Your task to perform on an android device: Turn on the flashlight Image 0: 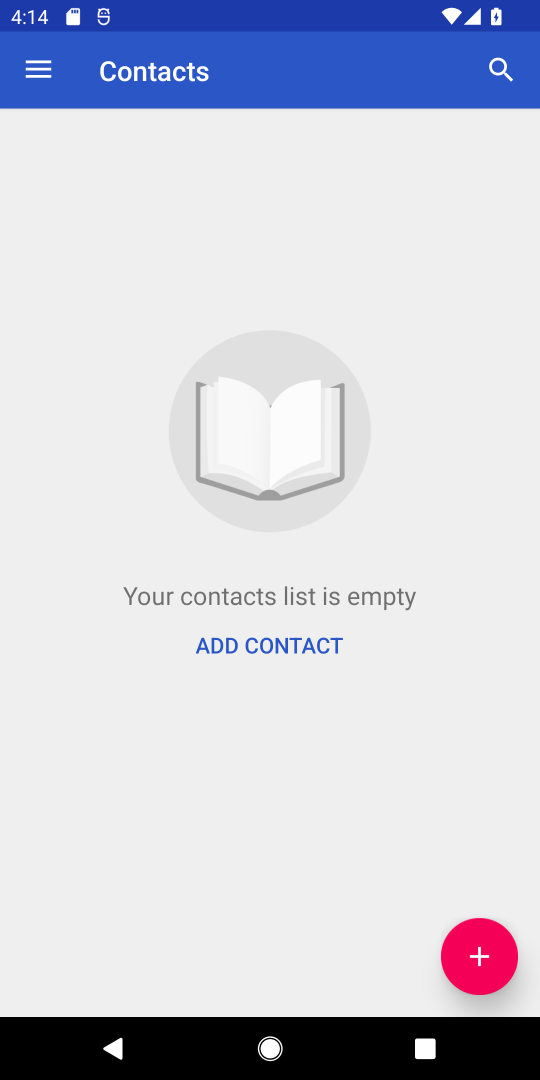
Step 0: press home button
Your task to perform on an android device: Turn on the flashlight Image 1: 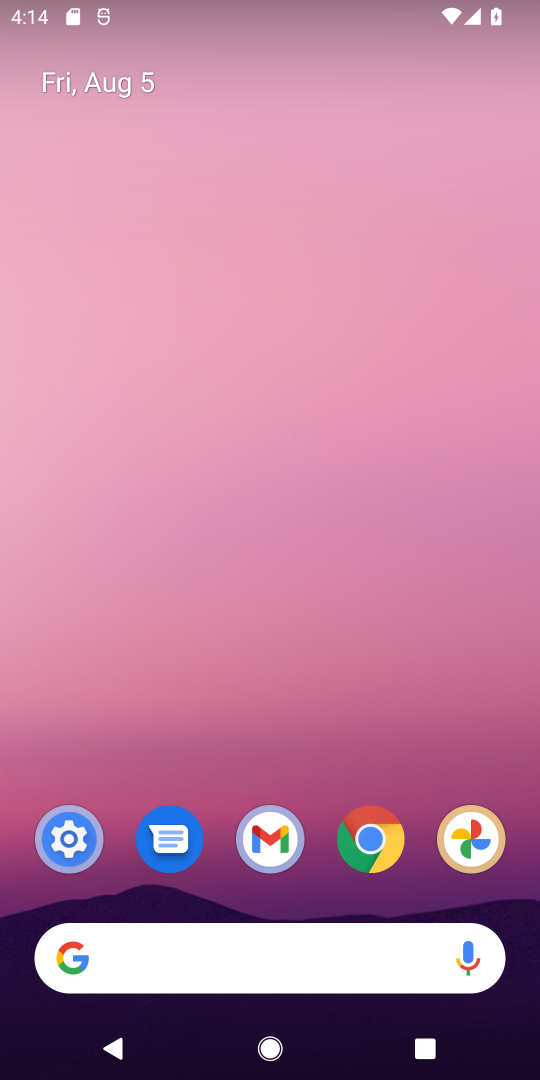
Step 1: drag from (210, 799) to (227, 220)
Your task to perform on an android device: Turn on the flashlight Image 2: 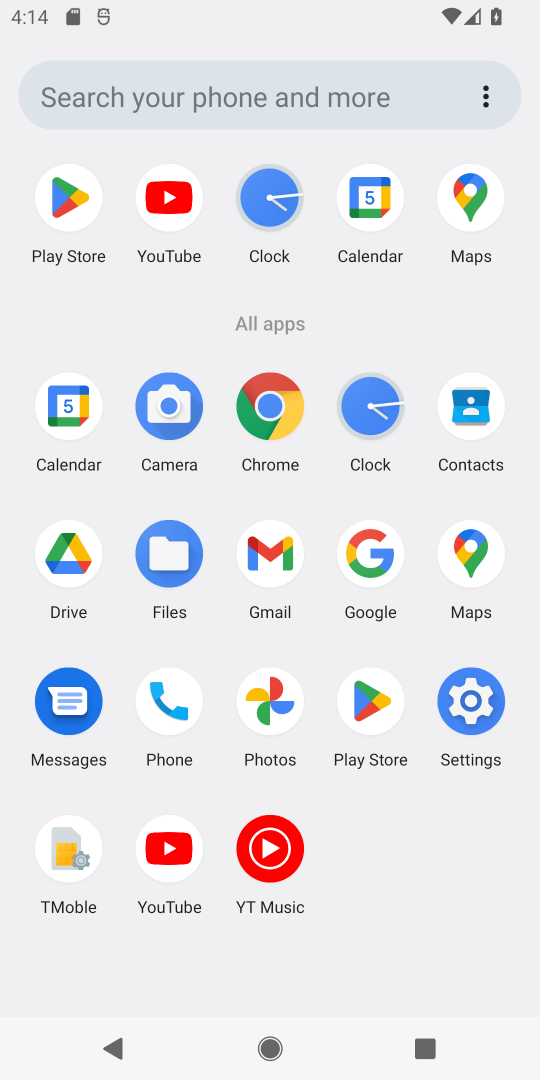
Step 2: click (459, 712)
Your task to perform on an android device: Turn on the flashlight Image 3: 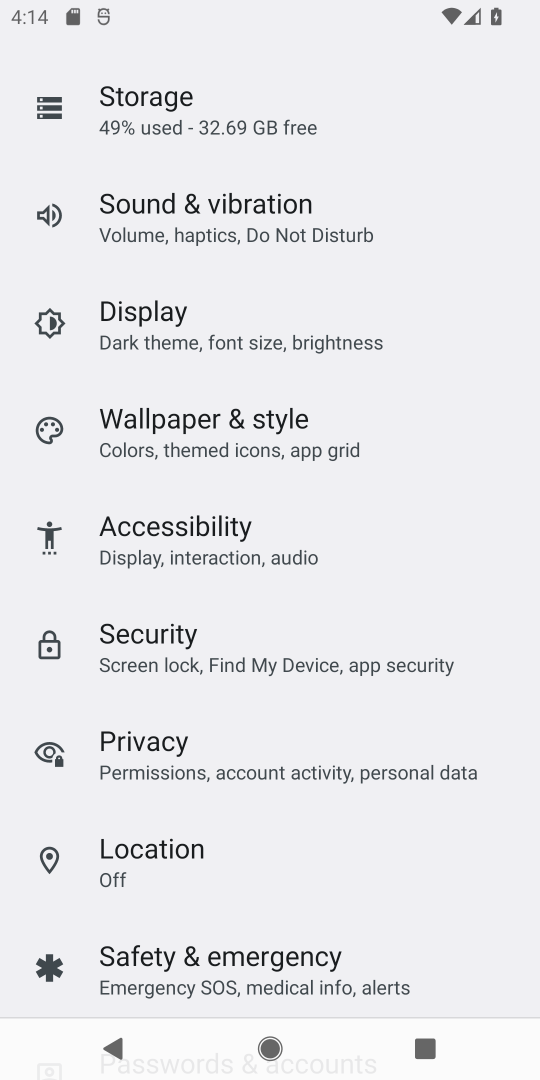
Step 3: task complete